Your task to perform on an android device: Search for sushi restaurants on Maps Image 0: 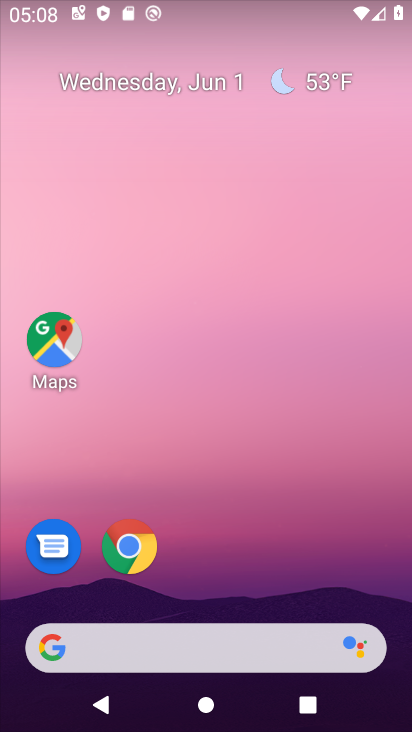
Step 0: click (202, 468)
Your task to perform on an android device: Search for sushi restaurants on Maps Image 1: 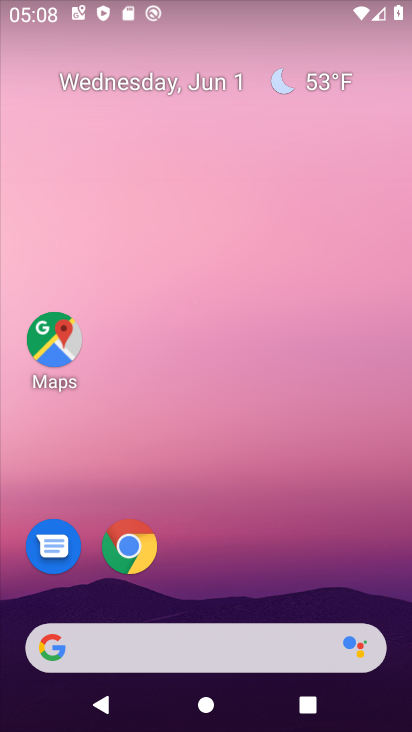
Step 1: click (56, 353)
Your task to perform on an android device: Search for sushi restaurants on Maps Image 2: 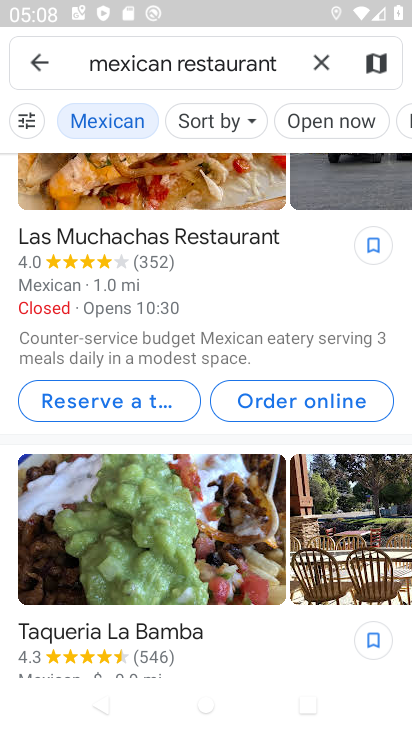
Step 2: click (319, 60)
Your task to perform on an android device: Search for sushi restaurants on Maps Image 3: 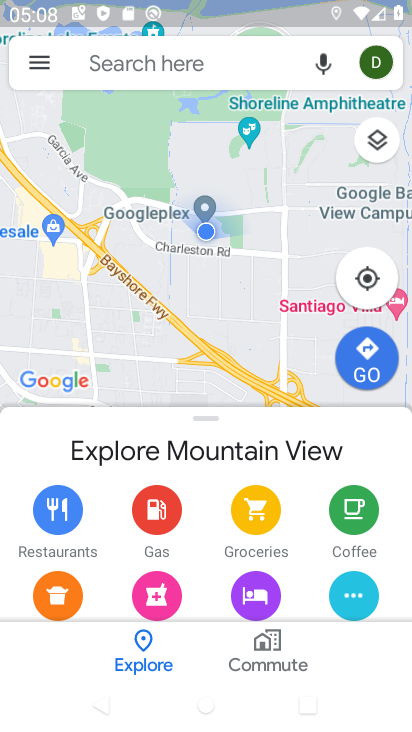
Step 3: click (107, 53)
Your task to perform on an android device: Search for sushi restaurants on Maps Image 4: 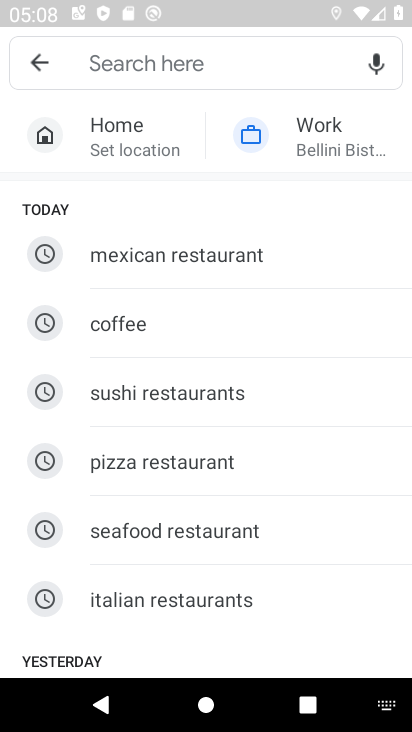
Step 4: click (151, 388)
Your task to perform on an android device: Search for sushi restaurants on Maps Image 5: 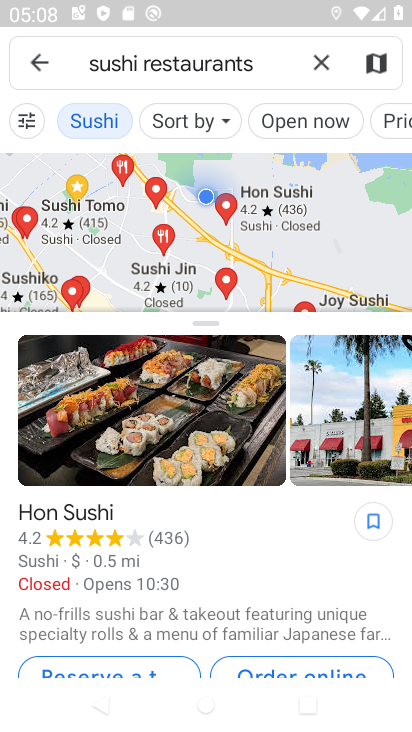
Step 5: task complete